Your task to perform on an android device: Open calendar and show me the fourth week of next month Image 0: 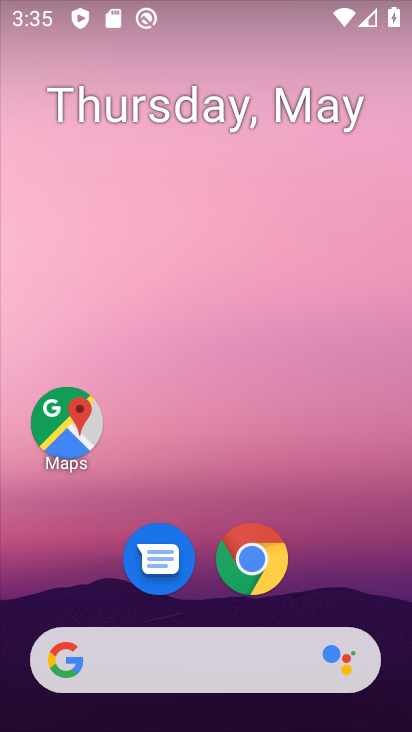
Step 0: drag from (347, 562) to (345, 184)
Your task to perform on an android device: Open calendar and show me the fourth week of next month Image 1: 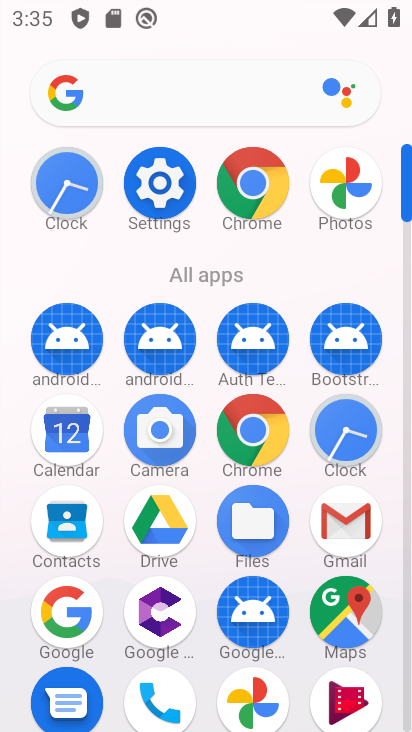
Step 1: click (88, 450)
Your task to perform on an android device: Open calendar and show me the fourth week of next month Image 2: 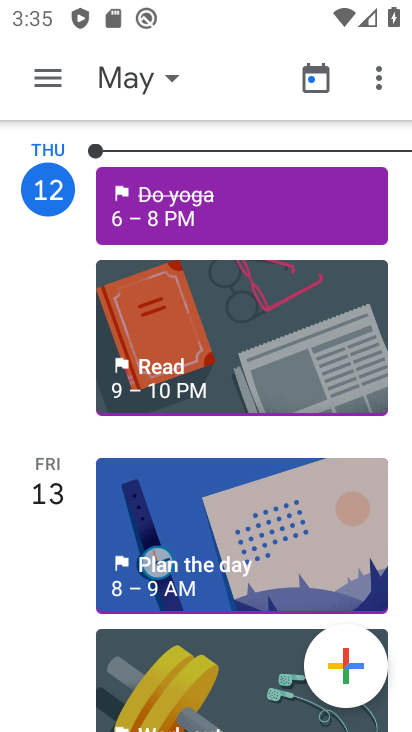
Step 2: click (131, 83)
Your task to perform on an android device: Open calendar and show me the fourth week of next month Image 3: 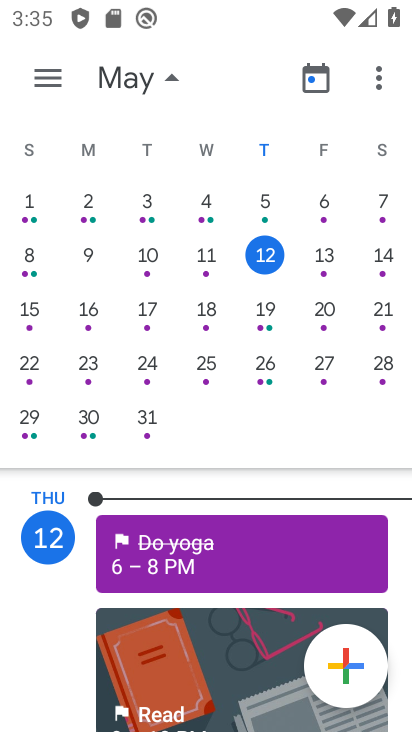
Step 3: drag from (356, 288) to (1, 429)
Your task to perform on an android device: Open calendar and show me the fourth week of next month Image 4: 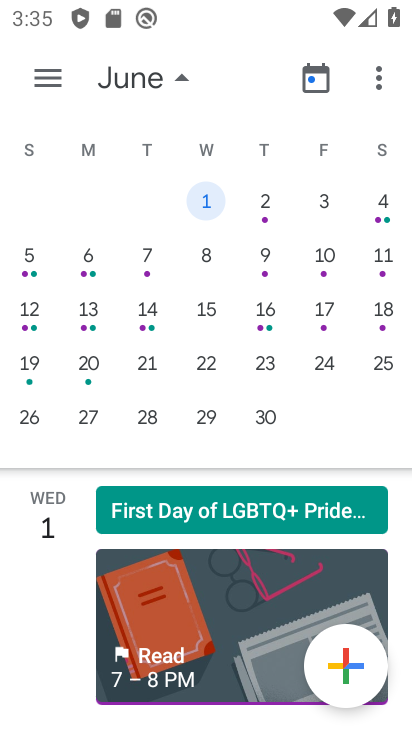
Step 4: click (39, 373)
Your task to perform on an android device: Open calendar and show me the fourth week of next month Image 5: 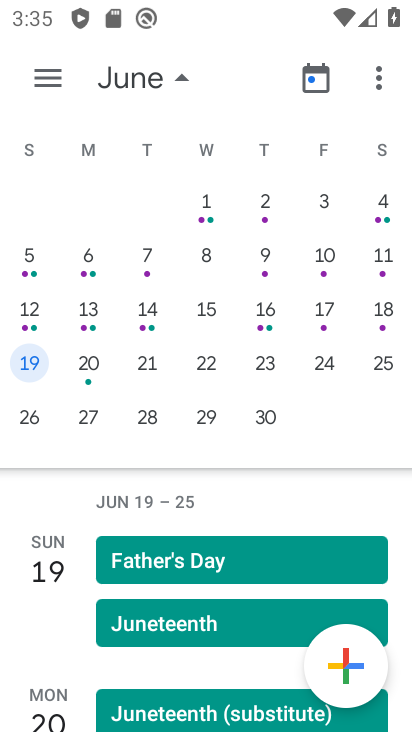
Step 5: click (83, 373)
Your task to perform on an android device: Open calendar and show me the fourth week of next month Image 6: 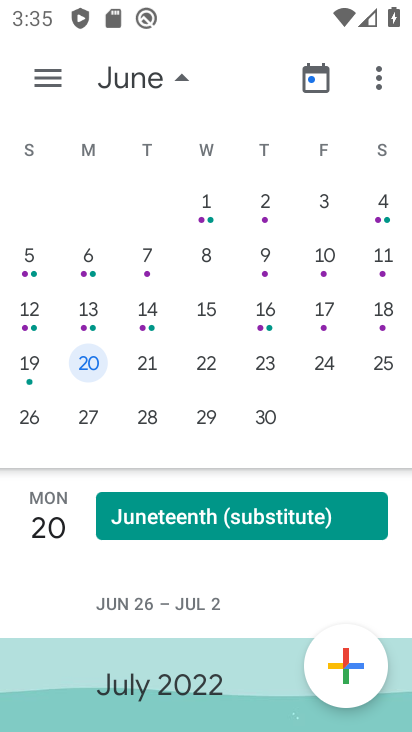
Step 6: click (143, 368)
Your task to perform on an android device: Open calendar and show me the fourth week of next month Image 7: 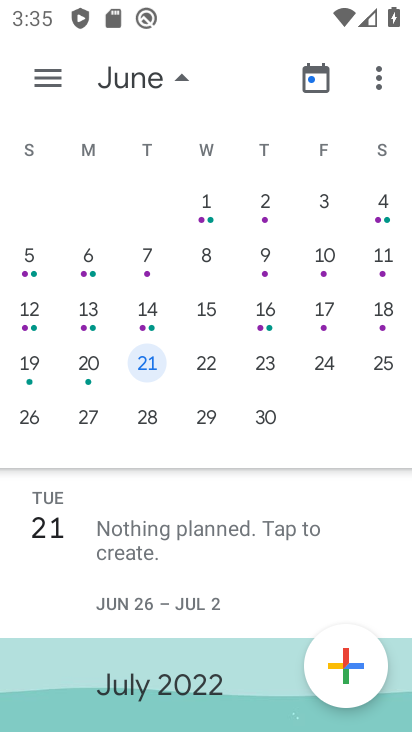
Step 7: click (216, 377)
Your task to perform on an android device: Open calendar and show me the fourth week of next month Image 8: 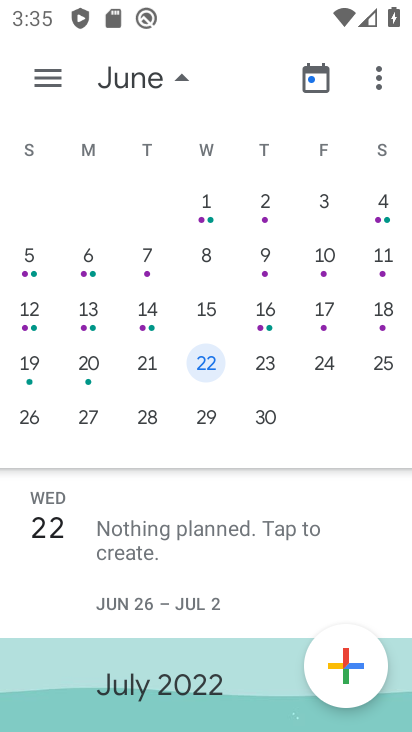
Step 8: click (243, 377)
Your task to perform on an android device: Open calendar and show me the fourth week of next month Image 9: 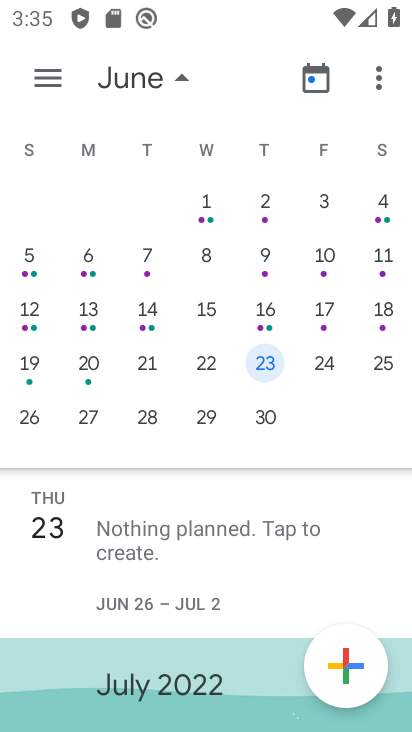
Step 9: click (326, 380)
Your task to perform on an android device: Open calendar and show me the fourth week of next month Image 10: 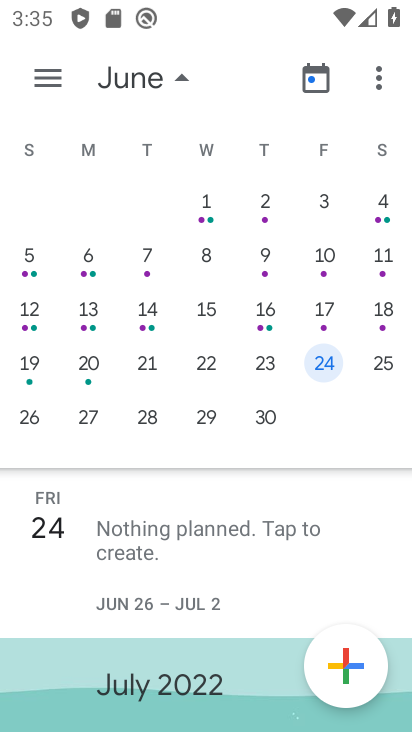
Step 10: click (383, 372)
Your task to perform on an android device: Open calendar and show me the fourth week of next month Image 11: 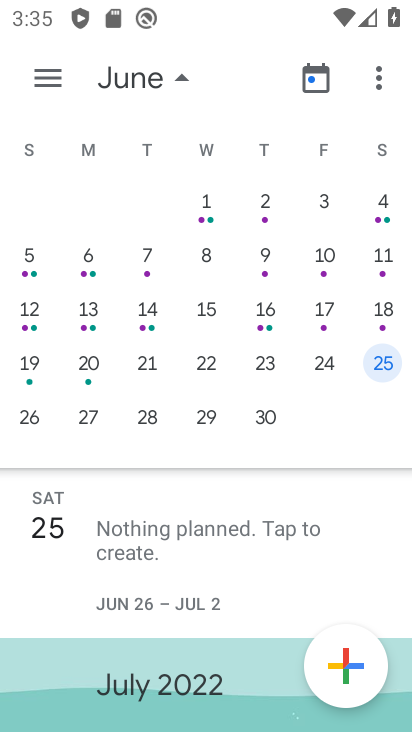
Step 11: task complete